Your task to perform on an android device: Search for seafood restaurants on Google Maps Image 0: 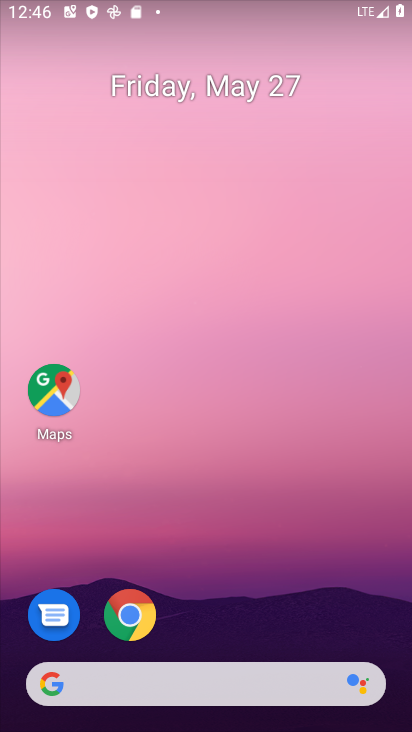
Step 0: drag from (300, 688) to (7, 566)
Your task to perform on an android device: Search for seafood restaurants on Google Maps Image 1: 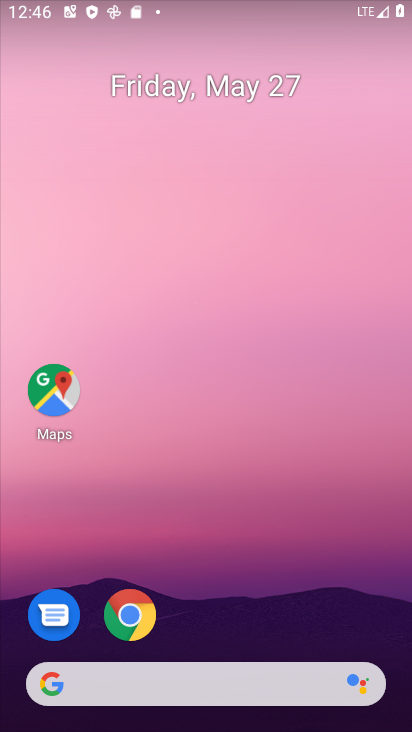
Step 1: click (48, 541)
Your task to perform on an android device: Search for seafood restaurants on Google Maps Image 2: 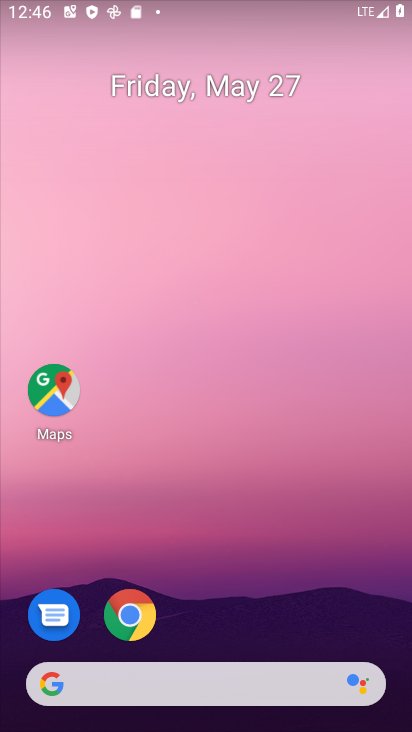
Step 2: drag from (318, 368) to (363, 6)
Your task to perform on an android device: Search for seafood restaurants on Google Maps Image 3: 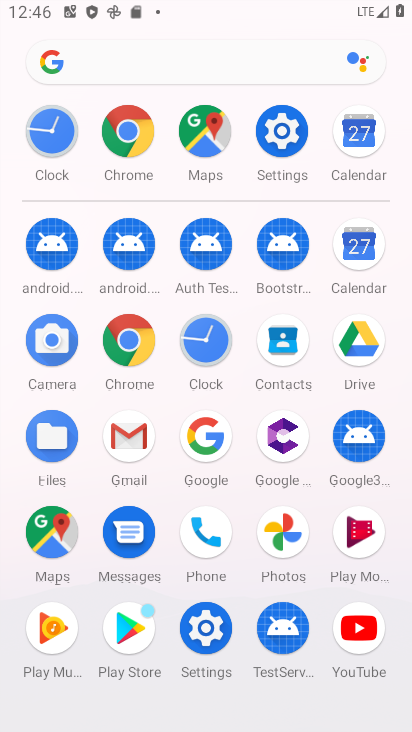
Step 3: click (61, 530)
Your task to perform on an android device: Search for seafood restaurants on Google Maps Image 4: 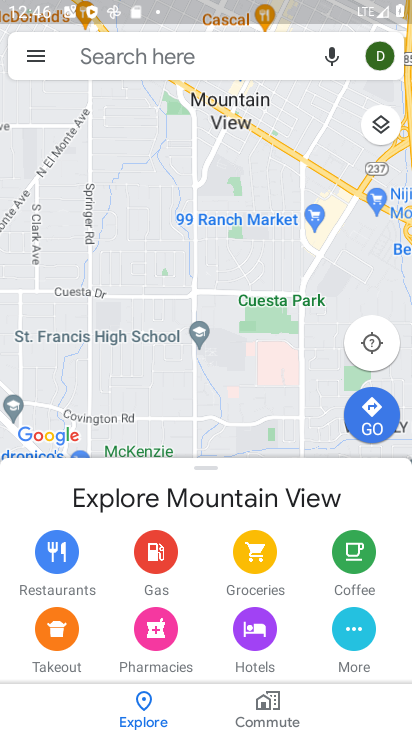
Step 4: click (209, 53)
Your task to perform on an android device: Search for seafood restaurants on Google Maps Image 5: 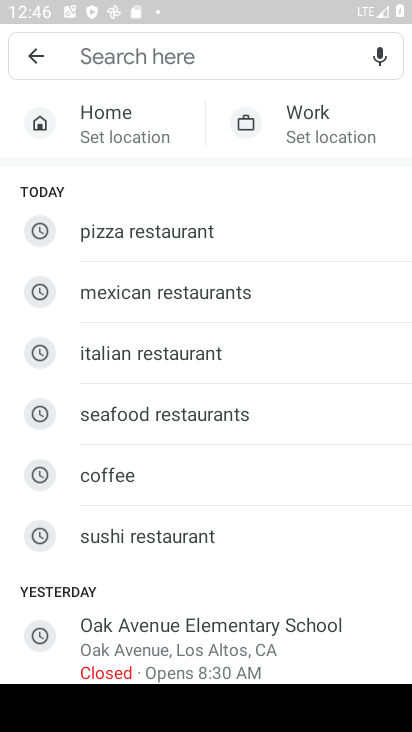
Step 5: click (206, 412)
Your task to perform on an android device: Search for seafood restaurants on Google Maps Image 6: 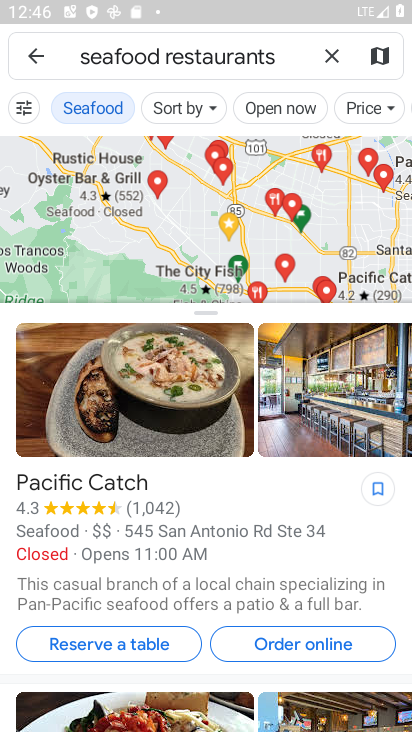
Step 6: task complete